Your task to perform on an android device: check google app version Image 0: 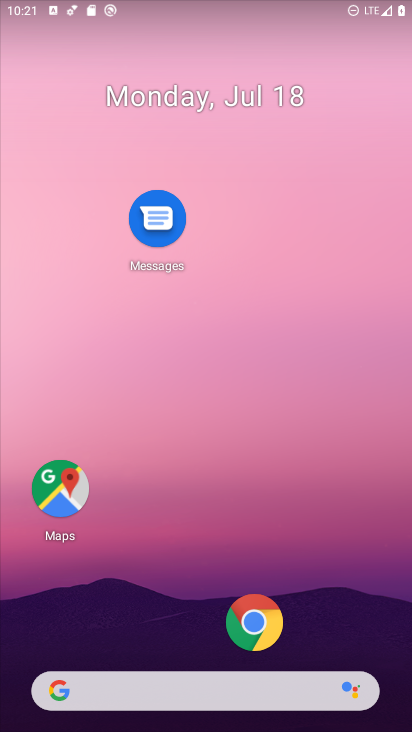
Step 0: drag from (151, 702) to (141, 259)
Your task to perform on an android device: check google app version Image 1: 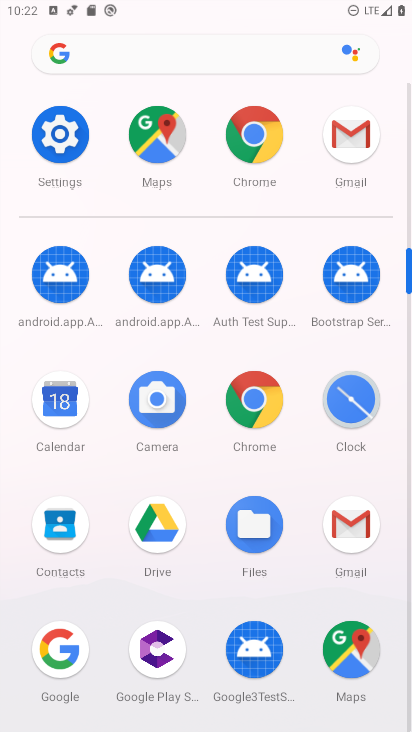
Step 1: drag from (205, 508) to (204, 219)
Your task to perform on an android device: check google app version Image 2: 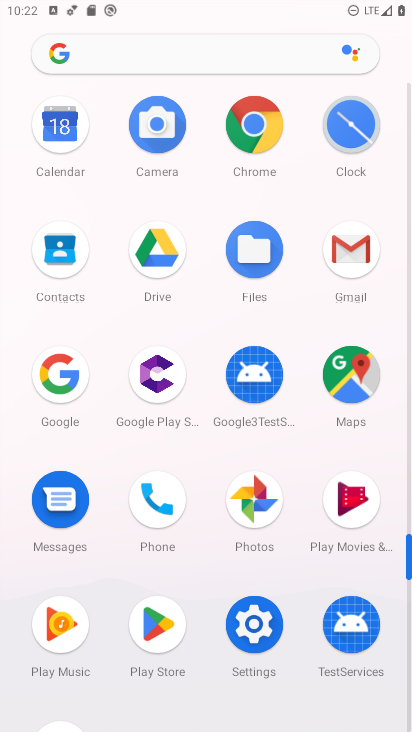
Step 2: drag from (210, 524) to (226, 158)
Your task to perform on an android device: check google app version Image 3: 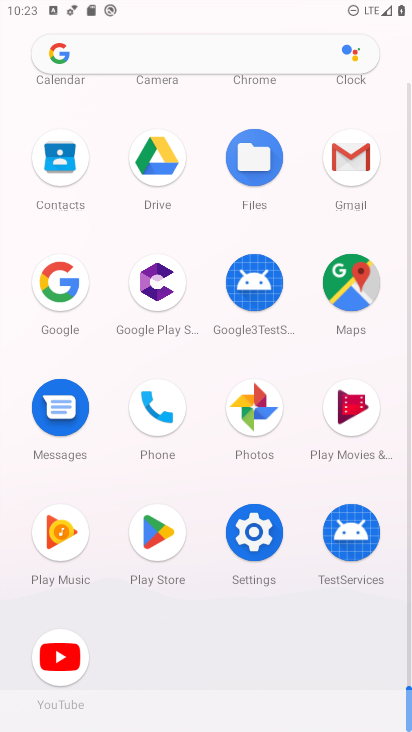
Step 3: click (54, 304)
Your task to perform on an android device: check google app version Image 4: 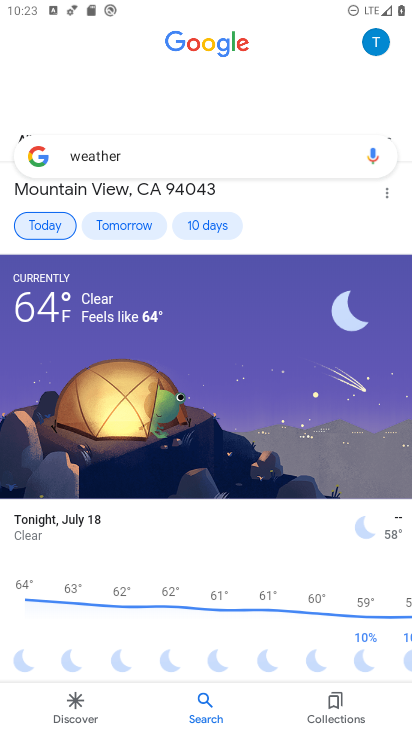
Step 4: click (368, 34)
Your task to perform on an android device: check google app version Image 5: 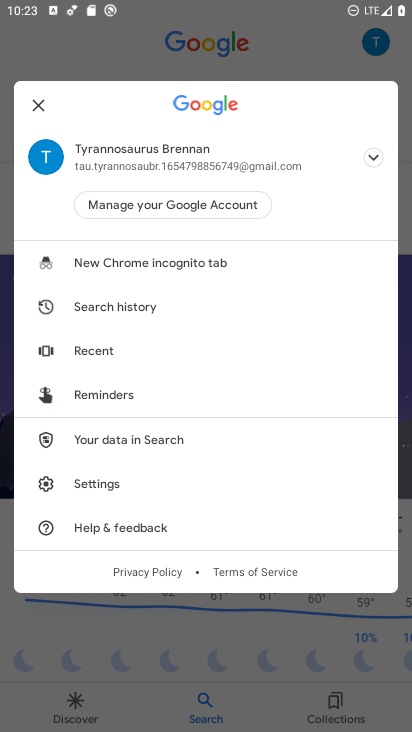
Step 5: click (110, 486)
Your task to perform on an android device: check google app version Image 6: 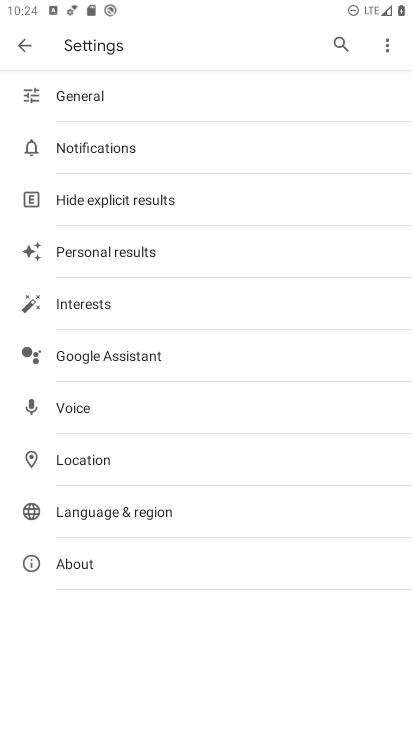
Step 6: click (91, 574)
Your task to perform on an android device: check google app version Image 7: 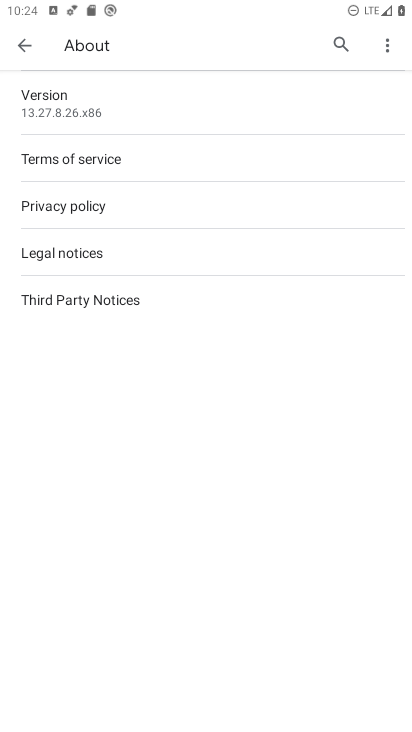
Step 7: click (73, 93)
Your task to perform on an android device: check google app version Image 8: 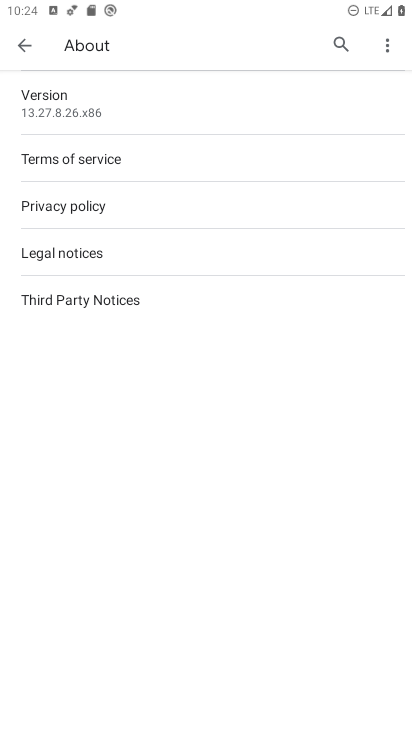
Step 8: task complete